Your task to perform on an android device: check the backup settings in the google photos Image 0: 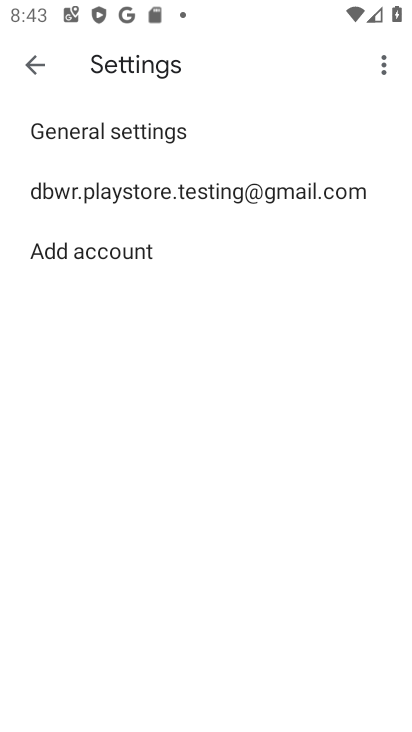
Step 0: press home button
Your task to perform on an android device: check the backup settings in the google photos Image 1: 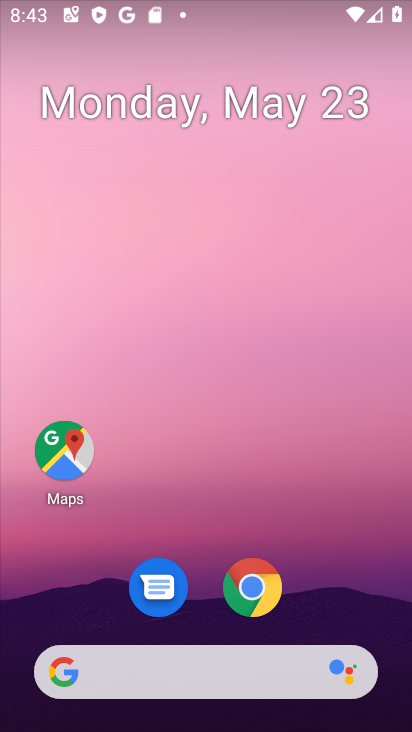
Step 1: drag from (195, 600) to (257, 36)
Your task to perform on an android device: check the backup settings in the google photos Image 2: 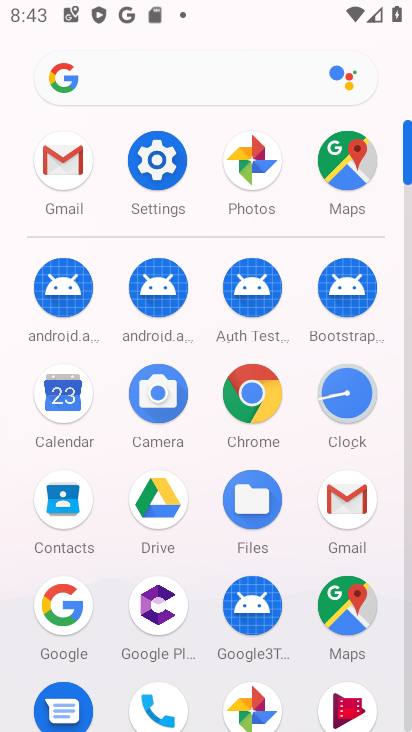
Step 2: click (241, 705)
Your task to perform on an android device: check the backup settings in the google photos Image 3: 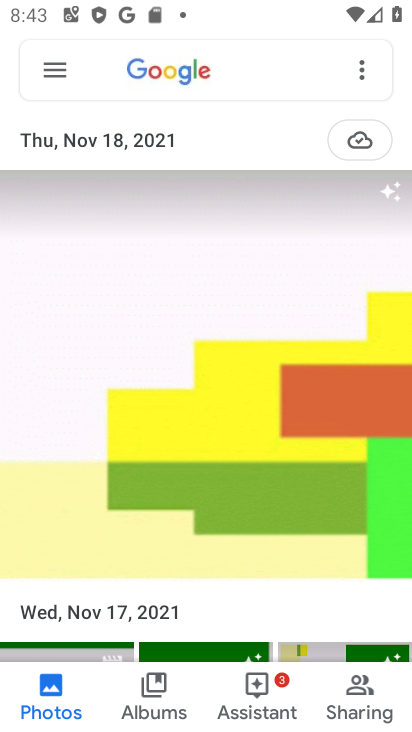
Step 3: click (47, 74)
Your task to perform on an android device: check the backup settings in the google photos Image 4: 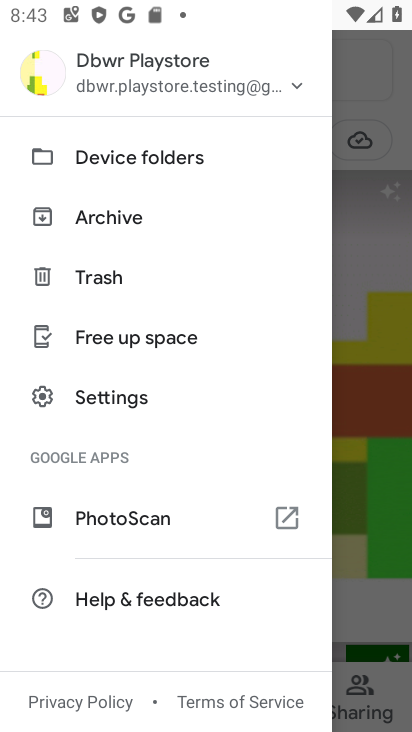
Step 4: click (113, 396)
Your task to perform on an android device: check the backup settings in the google photos Image 5: 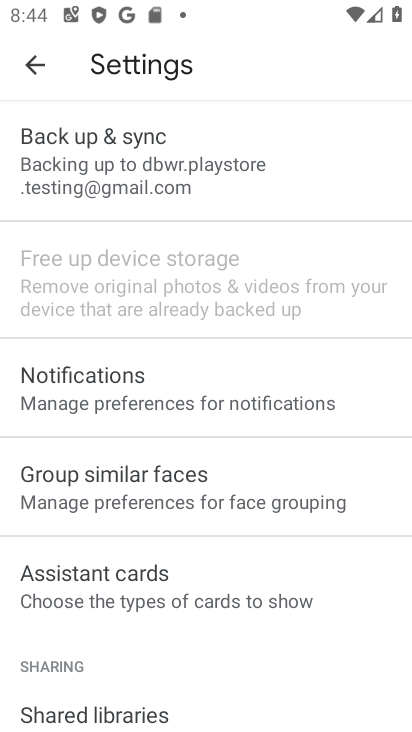
Step 5: click (191, 159)
Your task to perform on an android device: check the backup settings in the google photos Image 6: 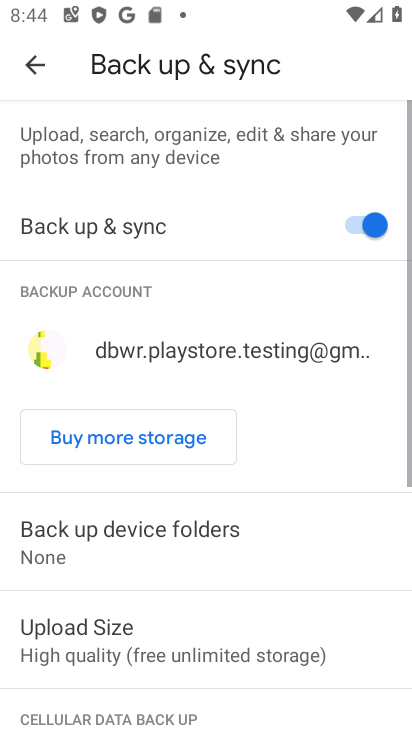
Step 6: task complete